Your task to perform on an android device: Open calendar and show me the first week of next month Image 0: 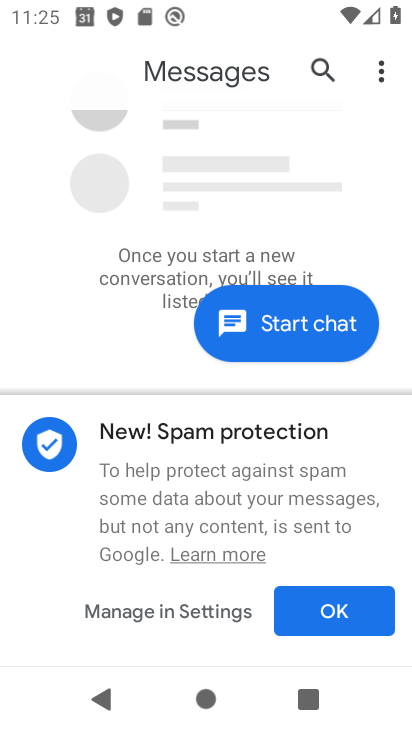
Step 0: press home button
Your task to perform on an android device: Open calendar and show me the first week of next month Image 1: 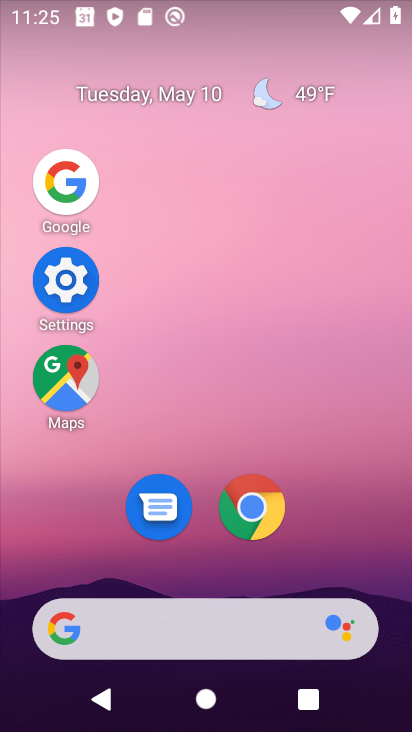
Step 1: drag from (348, 532) to (276, 118)
Your task to perform on an android device: Open calendar and show me the first week of next month Image 2: 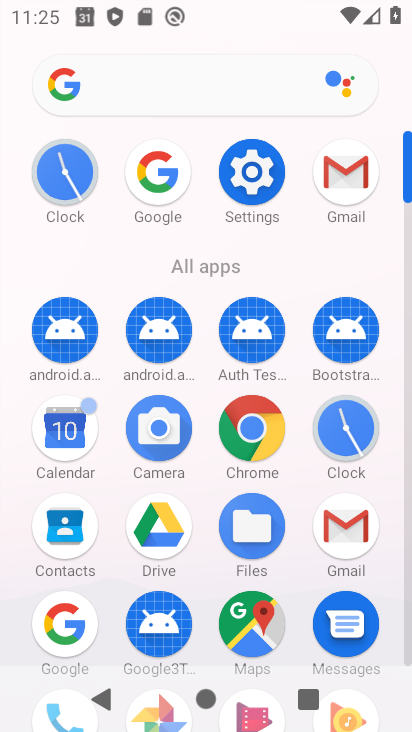
Step 2: drag from (69, 448) to (159, 279)
Your task to perform on an android device: Open calendar and show me the first week of next month Image 3: 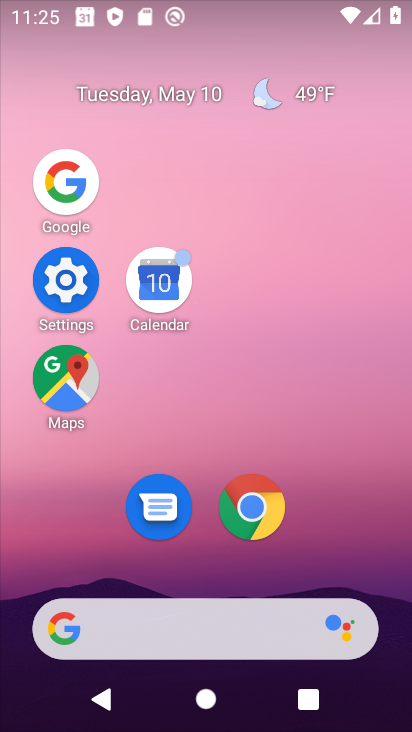
Step 3: click (161, 272)
Your task to perform on an android device: Open calendar and show me the first week of next month Image 4: 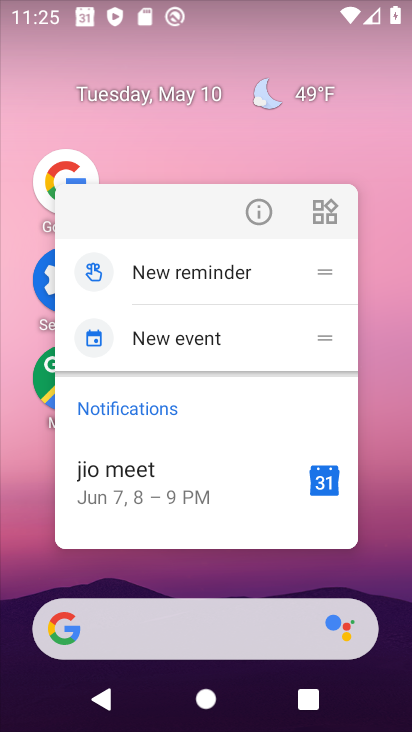
Step 4: click (341, 111)
Your task to perform on an android device: Open calendar and show me the first week of next month Image 5: 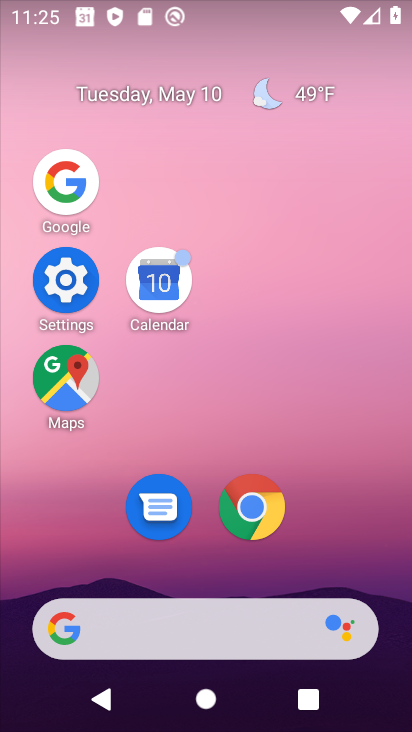
Step 5: click (180, 265)
Your task to perform on an android device: Open calendar and show me the first week of next month Image 6: 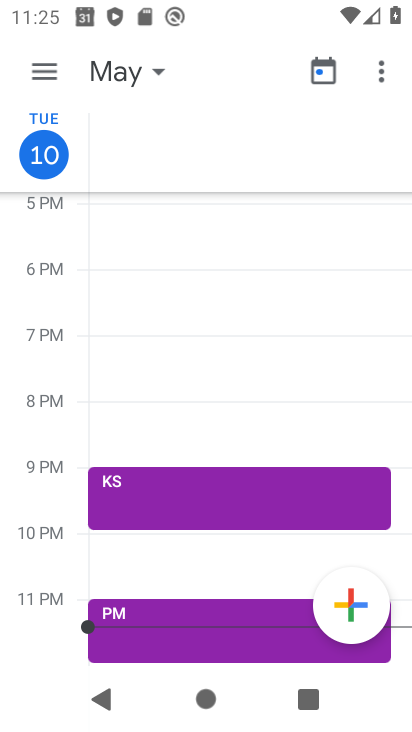
Step 6: click (118, 74)
Your task to perform on an android device: Open calendar and show me the first week of next month Image 7: 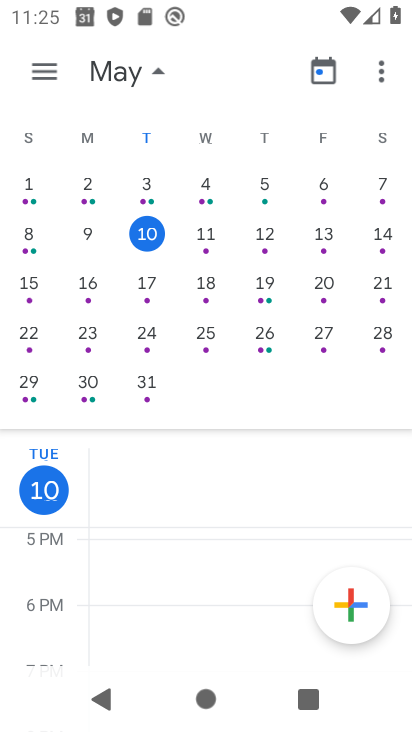
Step 7: drag from (402, 267) to (88, 276)
Your task to perform on an android device: Open calendar and show me the first week of next month Image 8: 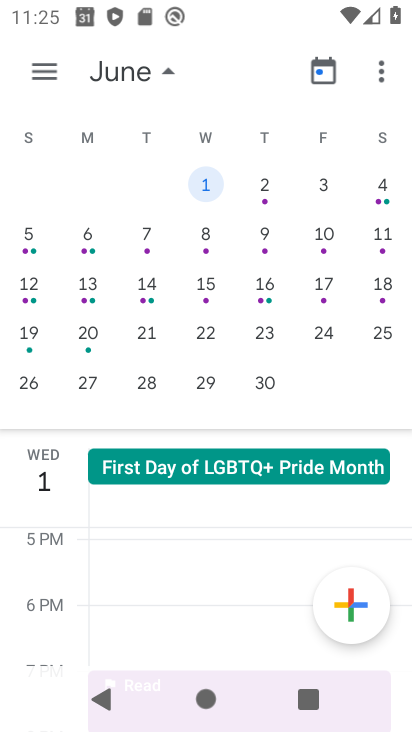
Step 8: click (41, 78)
Your task to perform on an android device: Open calendar and show me the first week of next month Image 9: 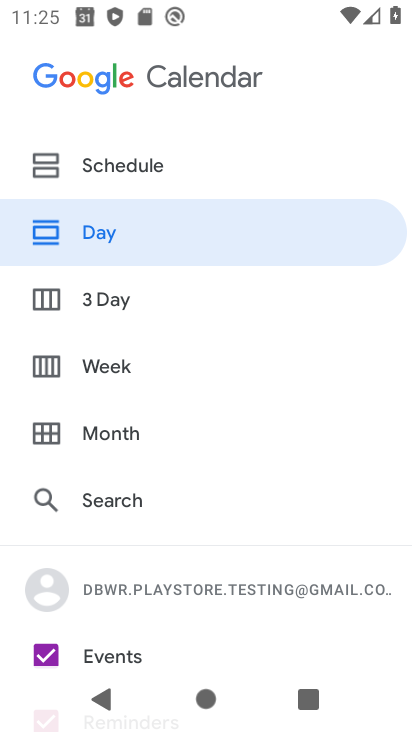
Step 9: click (118, 367)
Your task to perform on an android device: Open calendar and show me the first week of next month Image 10: 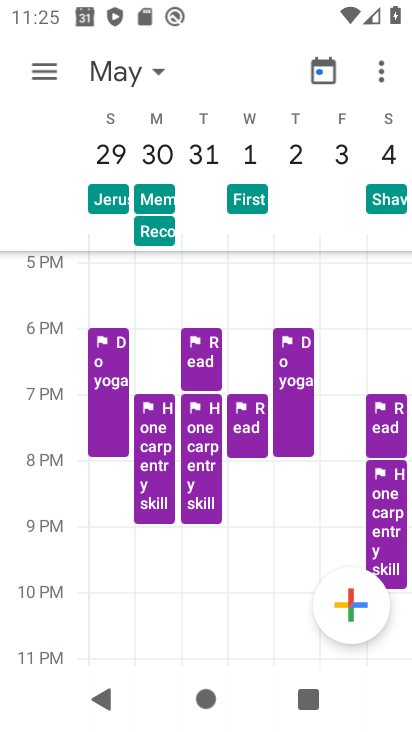
Step 10: click (259, 144)
Your task to perform on an android device: Open calendar and show me the first week of next month Image 11: 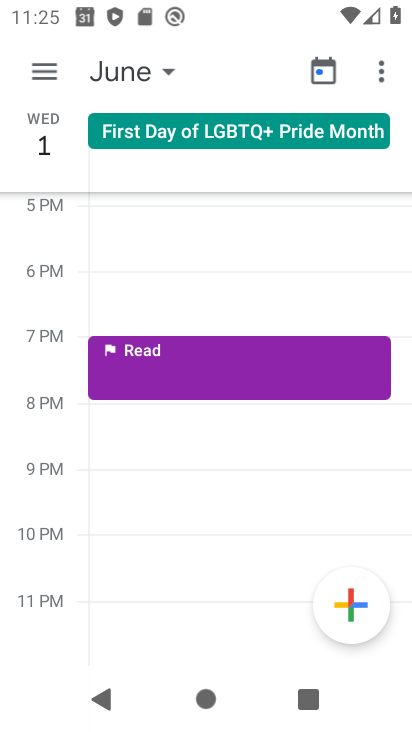
Step 11: task complete